Your task to perform on an android device: Search for Italian restaurants on Maps Image 0: 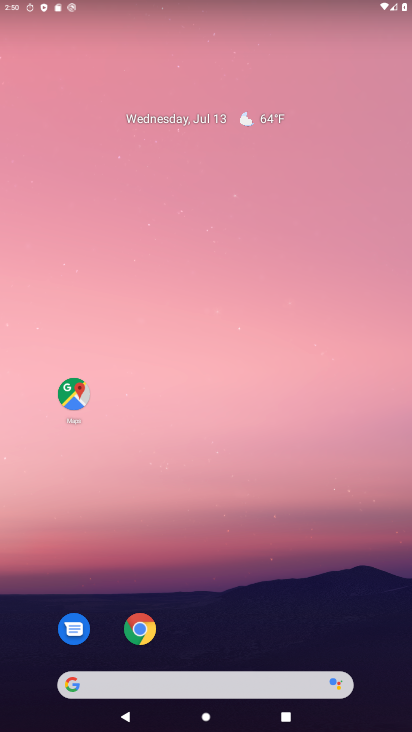
Step 0: drag from (344, 688) to (316, 11)
Your task to perform on an android device: Search for Italian restaurants on Maps Image 1: 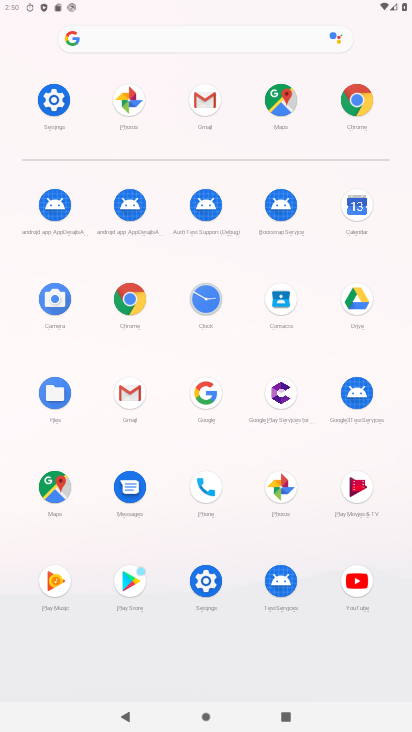
Step 1: click (55, 489)
Your task to perform on an android device: Search for Italian restaurants on Maps Image 2: 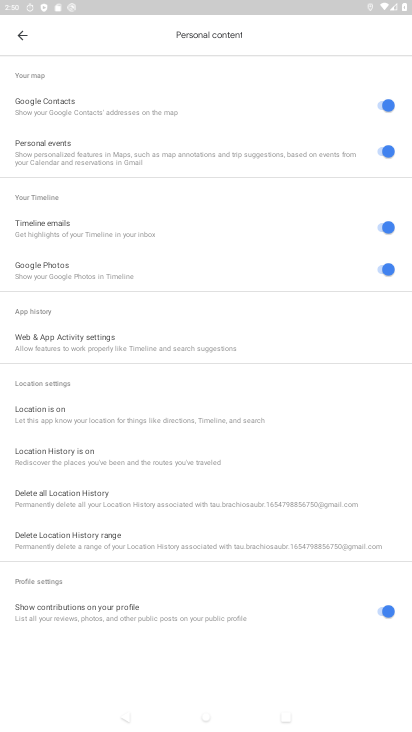
Step 2: press back button
Your task to perform on an android device: Search for Italian restaurants on Maps Image 3: 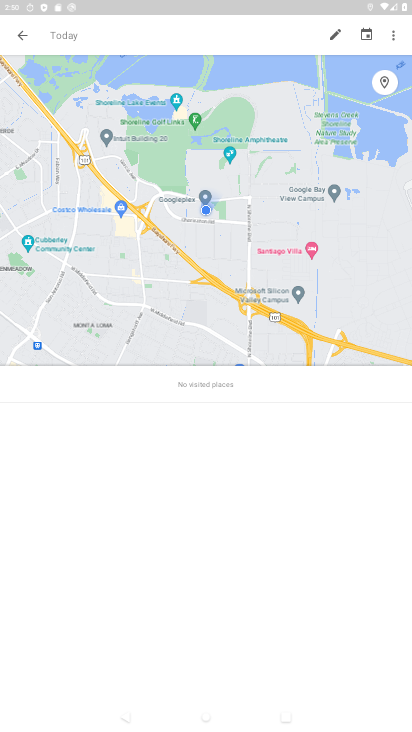
Step 3: press back button
Your task to perform on an android device: Search for Italian restaurants on Maps Image 4: 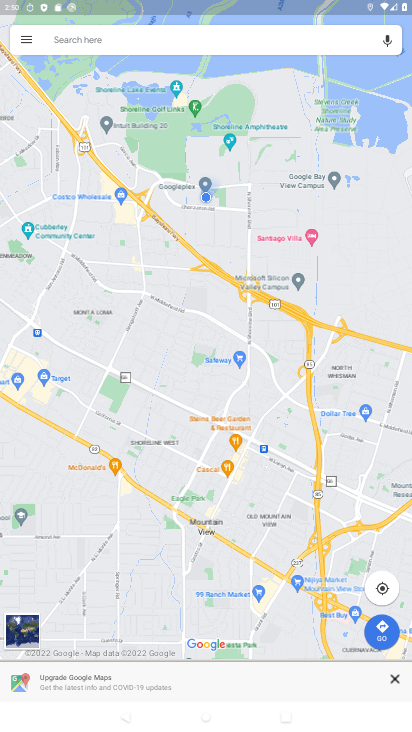
Step 4: click (155, 42)
Your task to perform on an android device: Search for Italian restaurants on Maps Image 5: 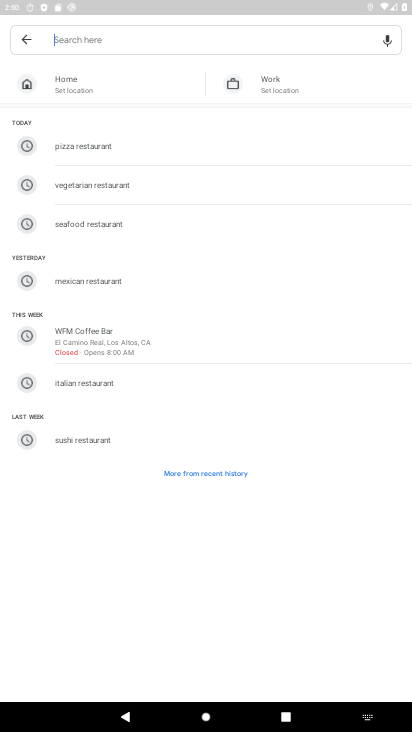
Step 5: click (145, 385)
Your task to perform on an android device: Search for Italian restaurants on Maps Image 6: 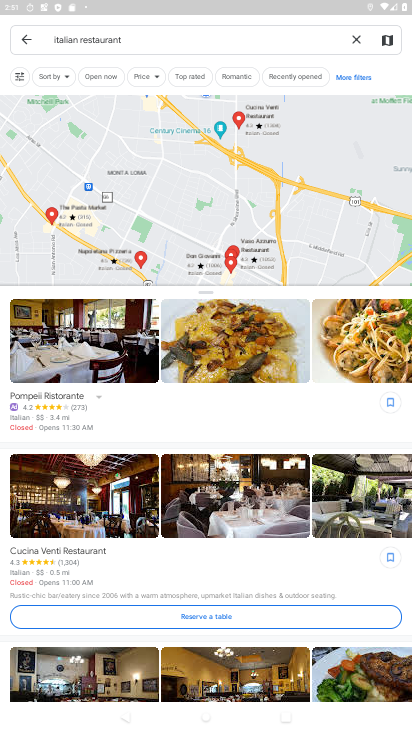
Step 6: task complete